Your task to perform on an android device: star an email in the gmail app Image 0: 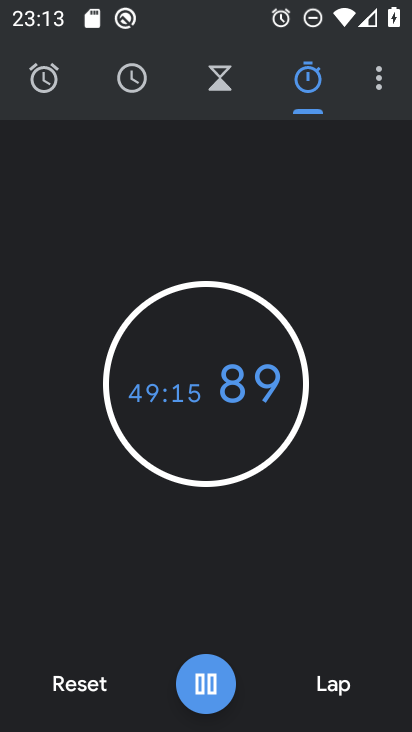
Step 0: press home button
Your task to perform on an android device: star an email in the gmail app Image 1: 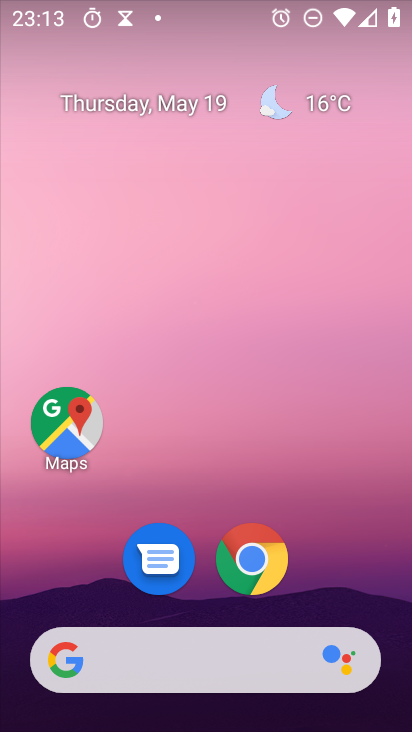
Step 1: drag from (245, 724) to (244, 76)
Your task to perform on an android device: star an email in the gmail app Image 2: 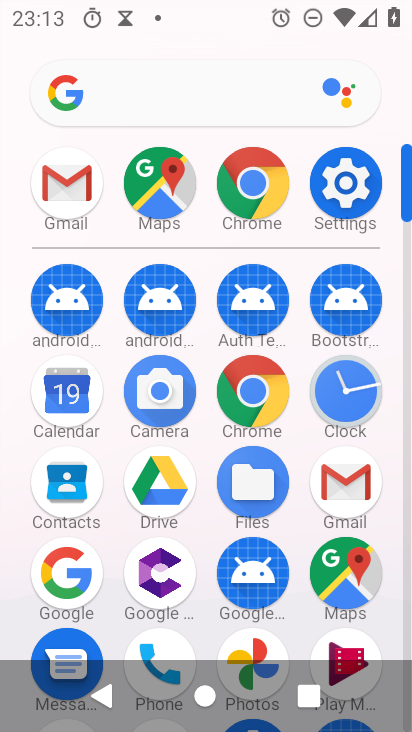
Step 2: click (344, 486)
Your task to perform on an android device: star an email in the gmail app Image 3: 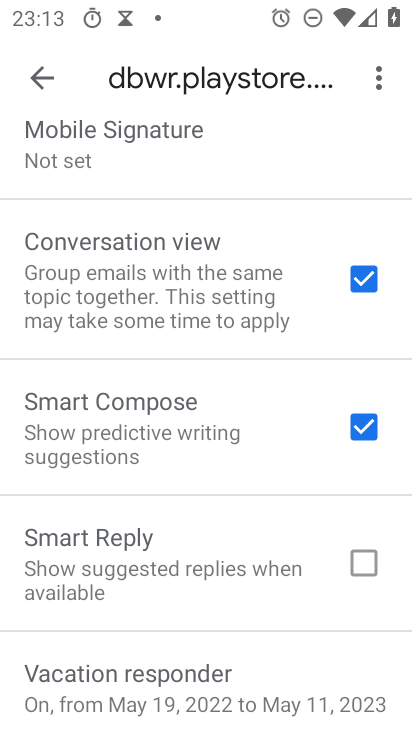
Step 3: click (38, 74)
Your task to perform on an android device: star an email in the gmail app Image 4: 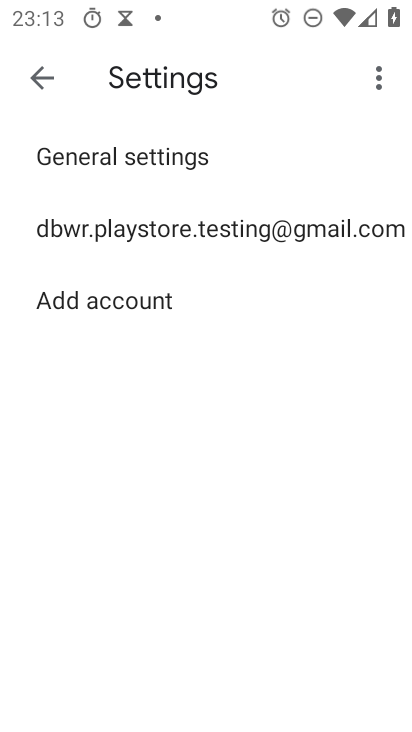
Step 4: click (37, 74)
Your task to perform on an android device: star an email in the gmail app Image 5: 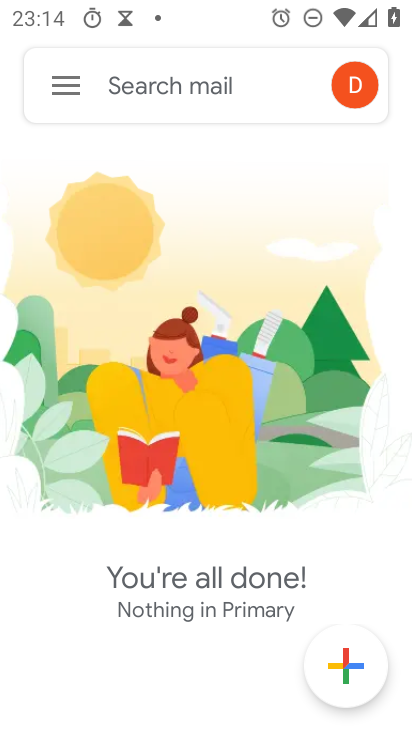
Step 5: task complete